Your task to perform on an android device: Open Yahoo.com Image 0: 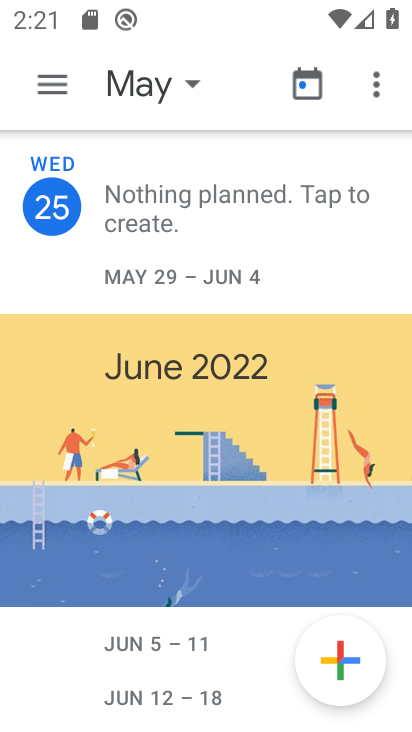
Step 0: press home button
Your task to perform on an android device: Open Yahoo.com Image 1: 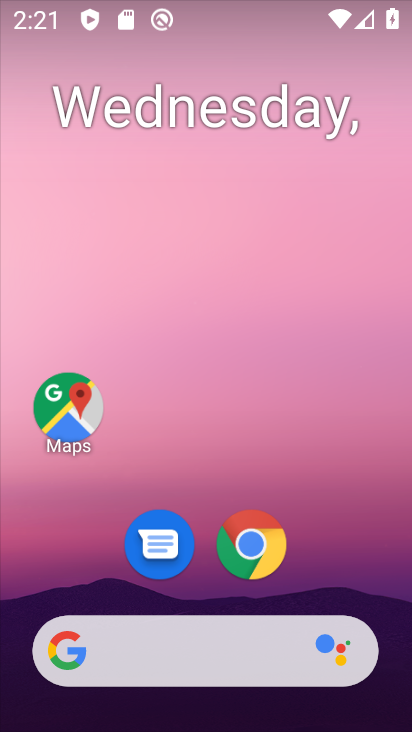
Step 1: click (251, 556)
Your task to perform on an android device: Open Yahoo.com Image 2: 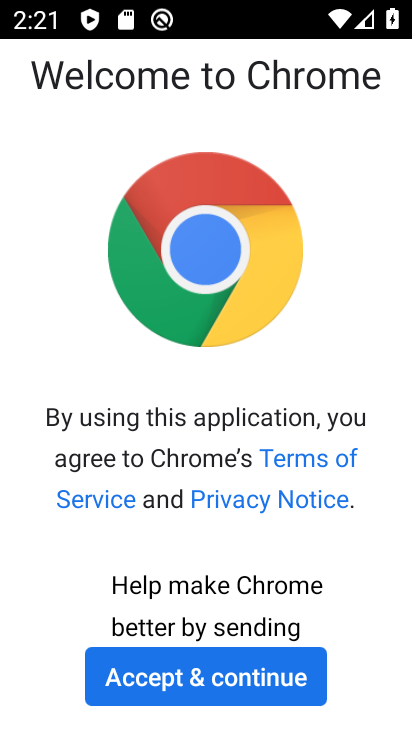
Step 2: click (157, 666)
Your task to perform on an android device: Open Yahoo.com Image 3: 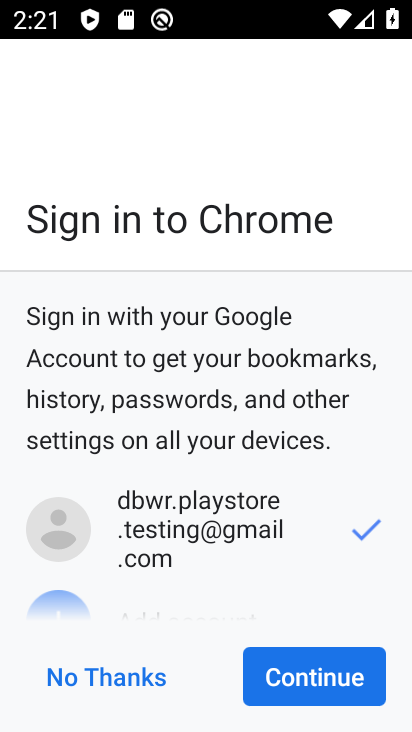
Step 3: click (296, 686)
Your task to perform on an android device: Open Yahoo.com Image 4: 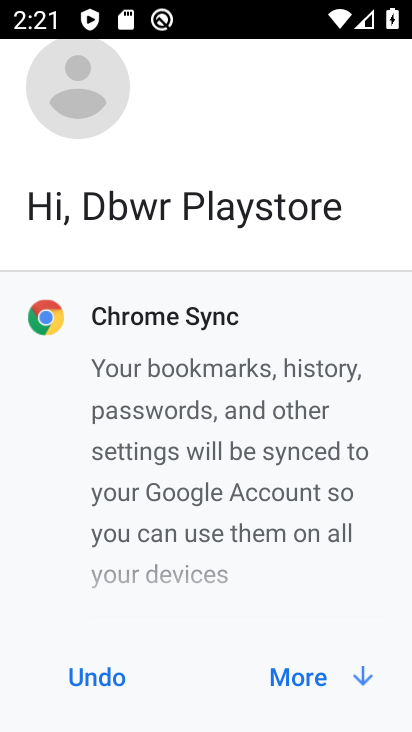
Step 4: click (297, 678)
Your task to perform on an android device: Open Yahoo.com Image 5: 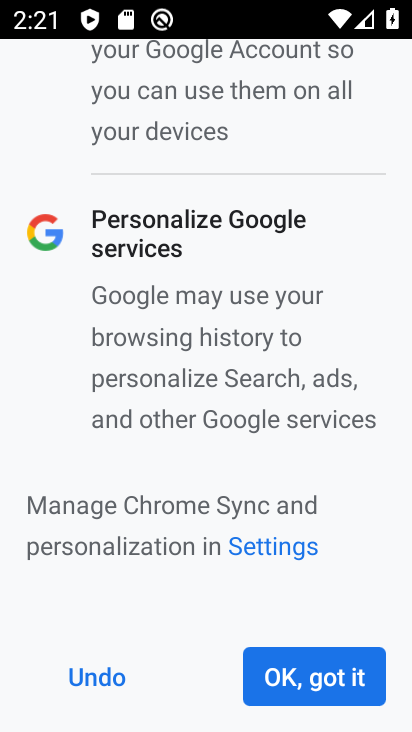
Step 5: click (297, 678)
Your task to perform on an android device: Open Yahoo.com Image 6: 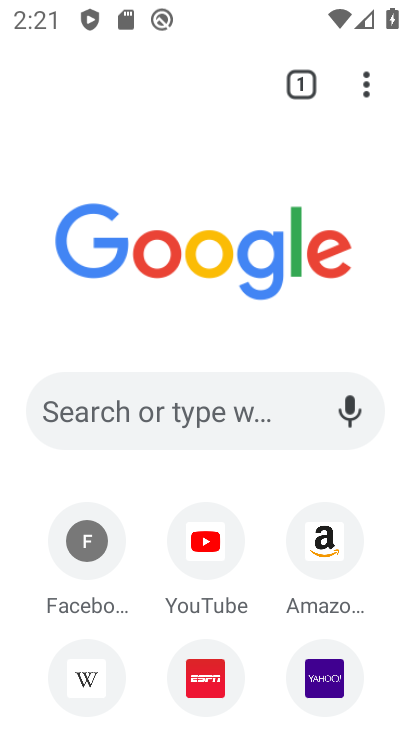
Step 6: click (335, 675)
Your task to perform on an android device: Open Yahoo.com Image 7: 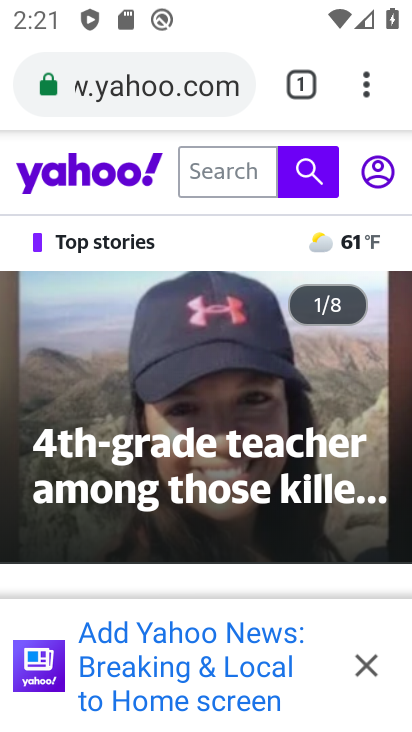
Step 7: task complete